Your task to perform on an android device: Go to internet settings Image 0: 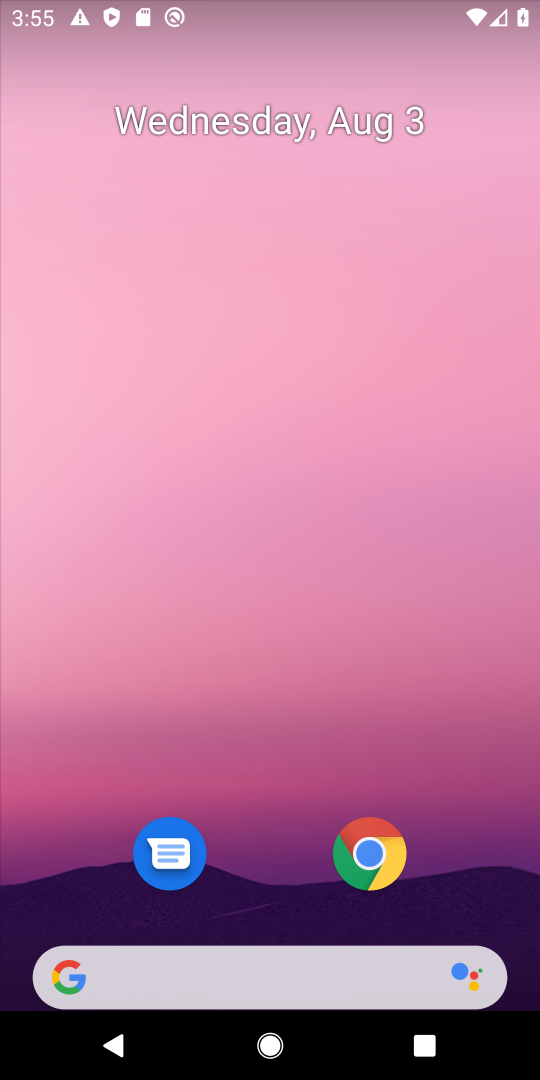
Step 0: press home button
Your task to perform on an android device: Go to internet settings Image 1: 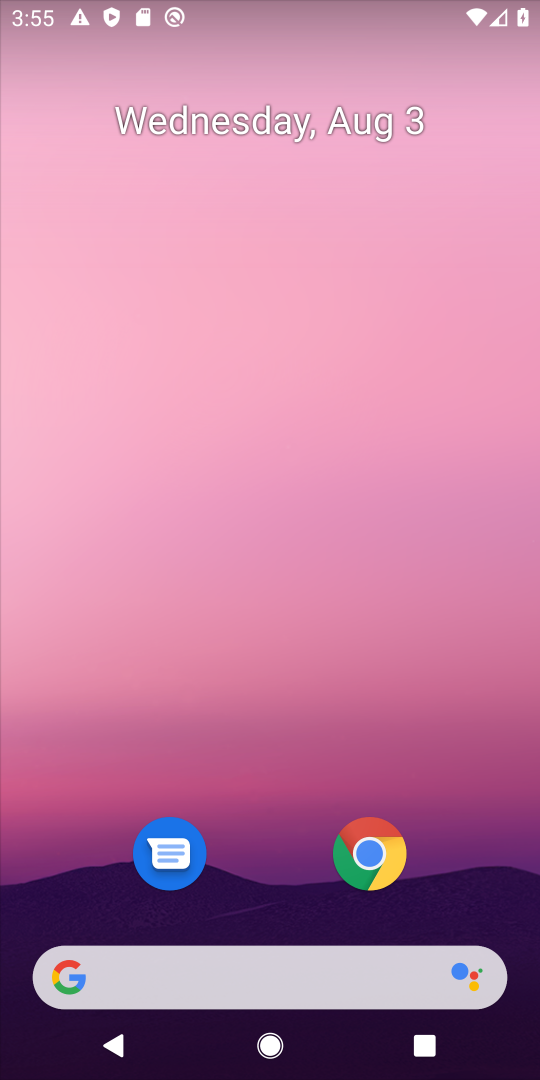
Step 1: drag from (286, 924) to (253, 2)
Your task to perform on an android device: Go to internet settings Image 2: 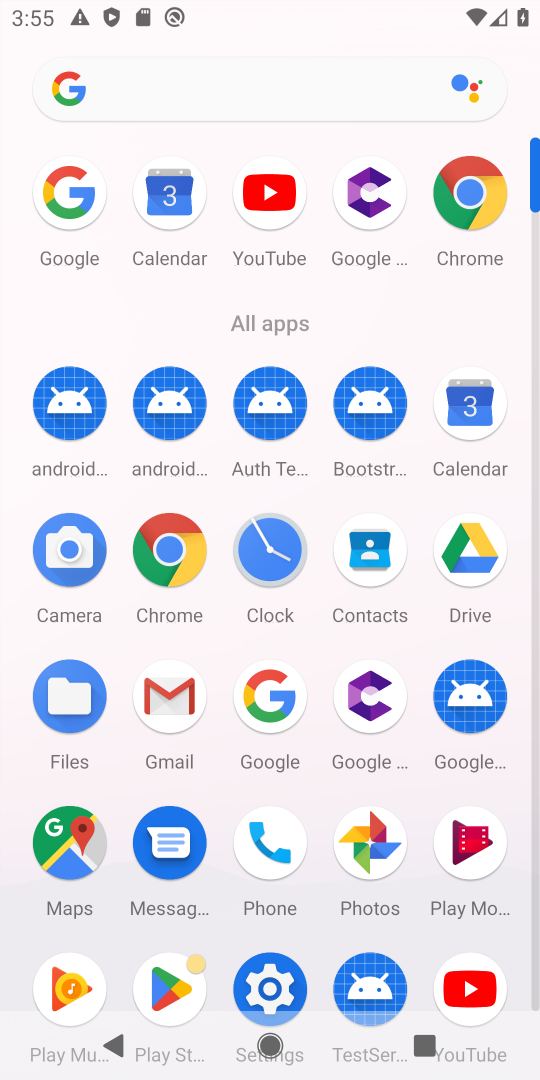
Step 2: click (274, 975)
Your task to perform on an android device: Go to internet settings Image 3: 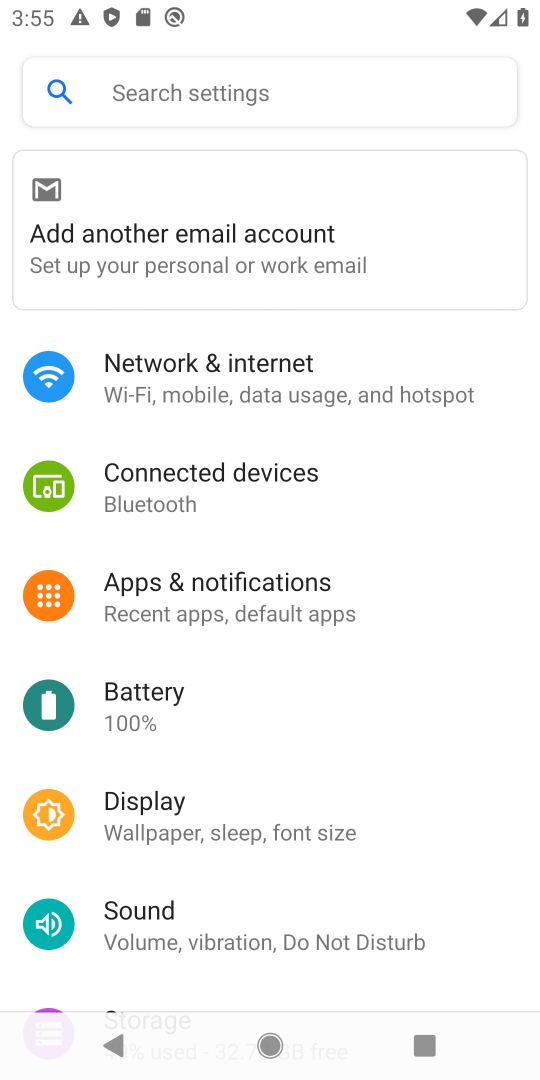
Step 3: click (195, 376)
Your task to perform on an android device: Go to internet settings Image 4: 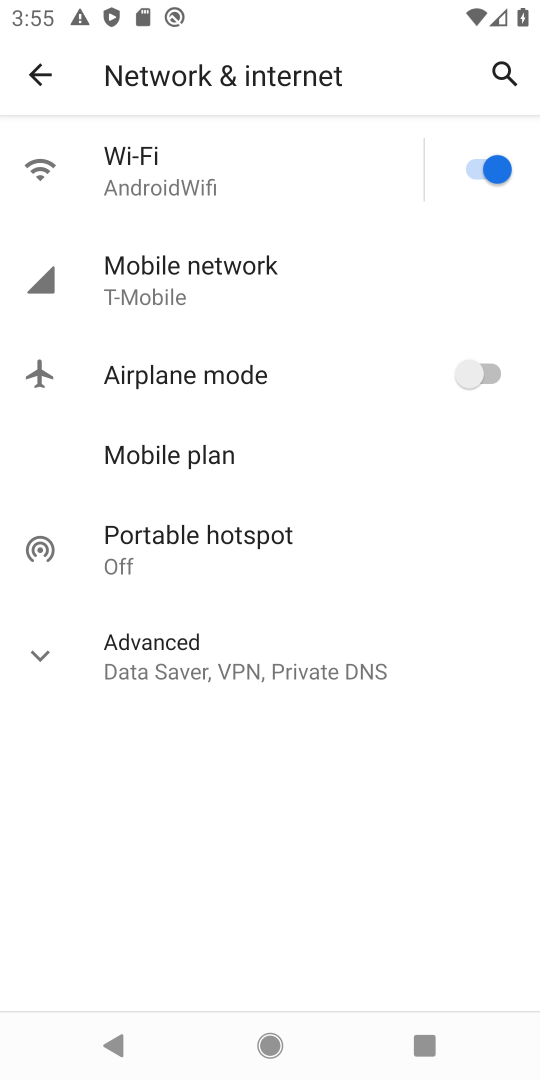
Step 4: task complete